Your task to perform on an android device: change the clock display to analog Image 0: 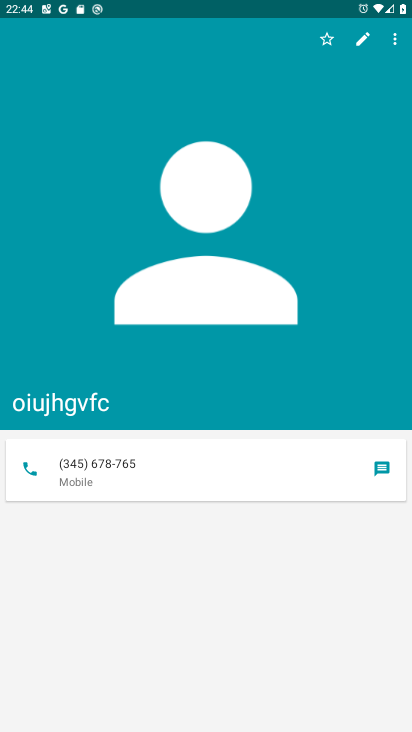
Step 0: press home button
Your task to perform on an android device: change the clock display to analog Image 1: 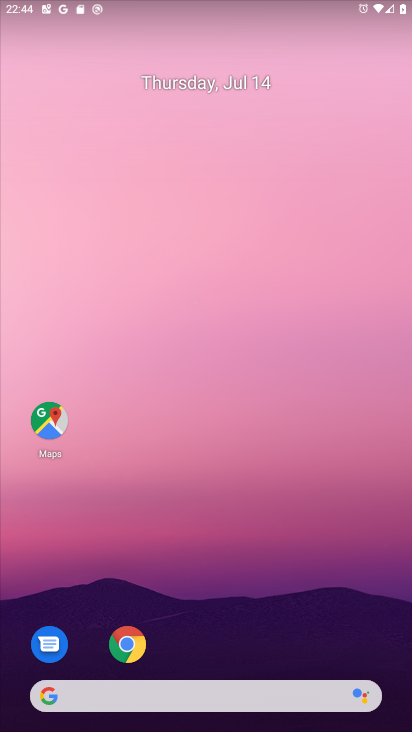
Step 1: drag from (218, 652) to (245, 82)
Your task to perform on an android device: change the clock display to analog Image 2: 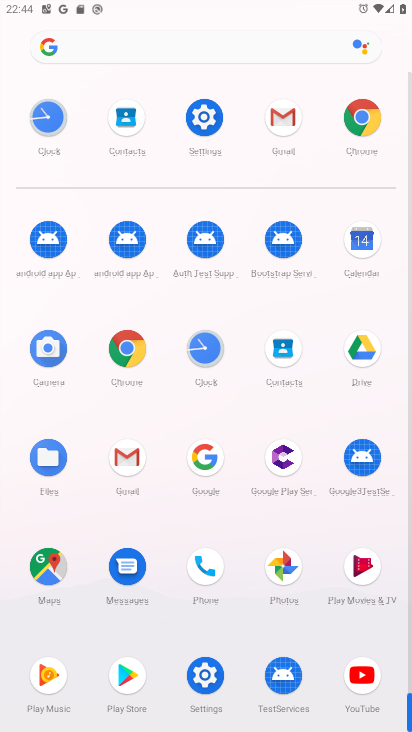
Step 2: click (51, 134)
Your task to perform on an android device: change the clock display to analog Image 3: 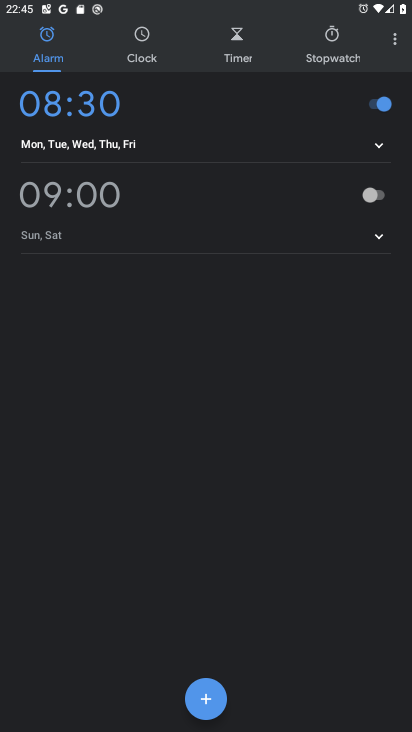
Step 3: click (399, 36)
Your task to perform on an android device: change the clock display to analog Image 4: 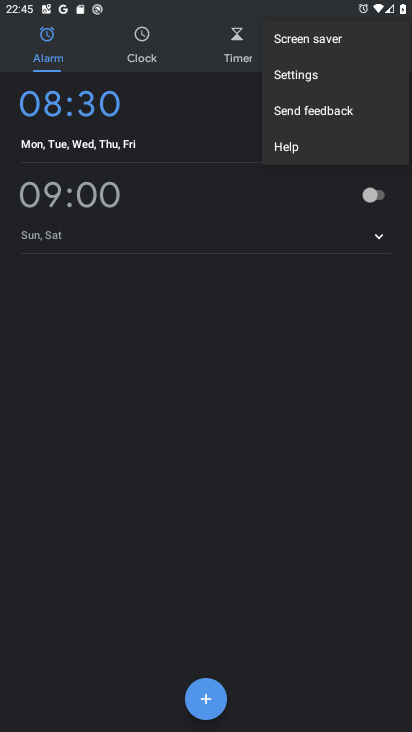
Step 4: click (322, 82)
Your task to perform on an android device: change the clock display to analog Image 5: 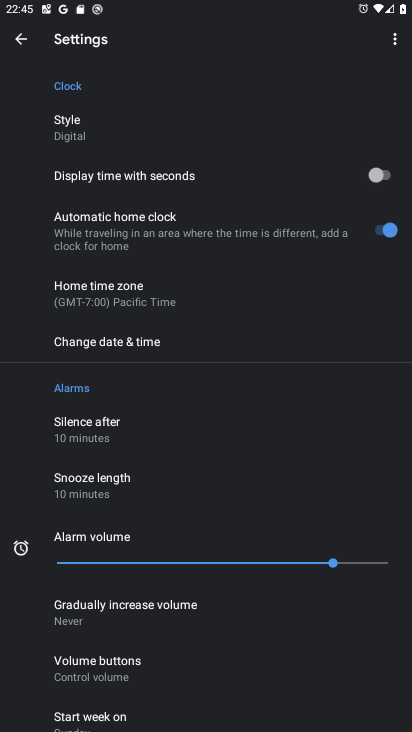
Step 5: click (166, 131)
Your task to perform on an android device: change the clock display to analog Image 6: 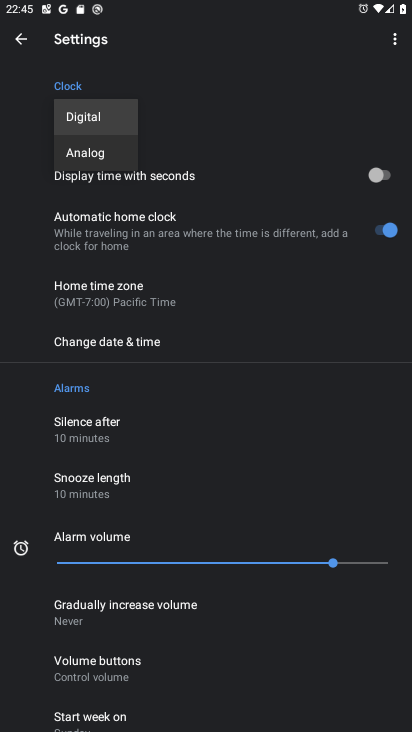
Step 6: click (111, 162)
Your task to perform on an android device: change the clock display to analog Image 7: 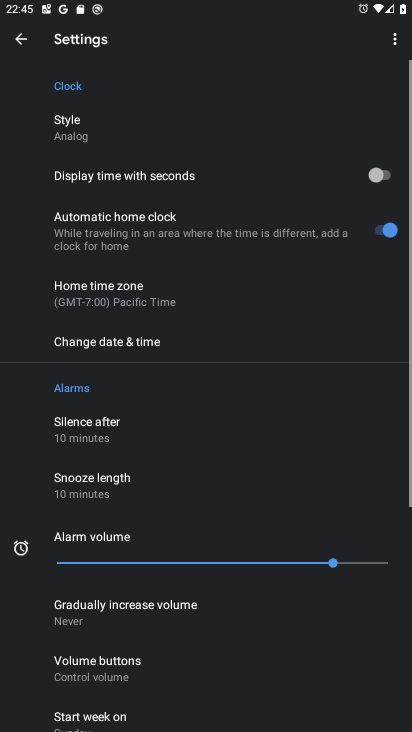
Step 7: task complete